Your task to perform on an android device: Open accessibility settings Image 0: 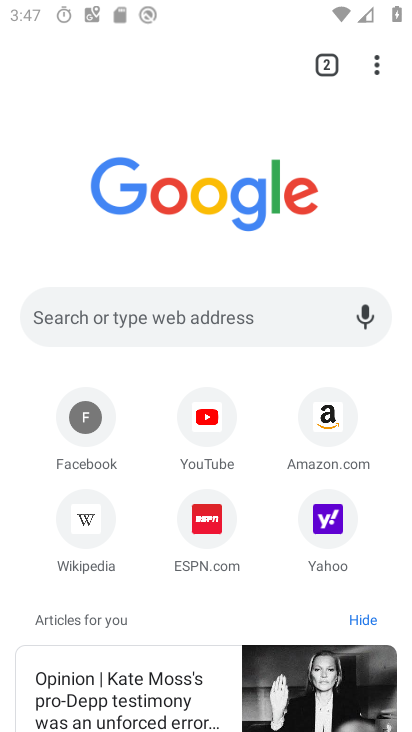
Step 0: drag from (346, 713) to (300, 390)
Your task to perform on an android device: Open accessibility settings Image 1: 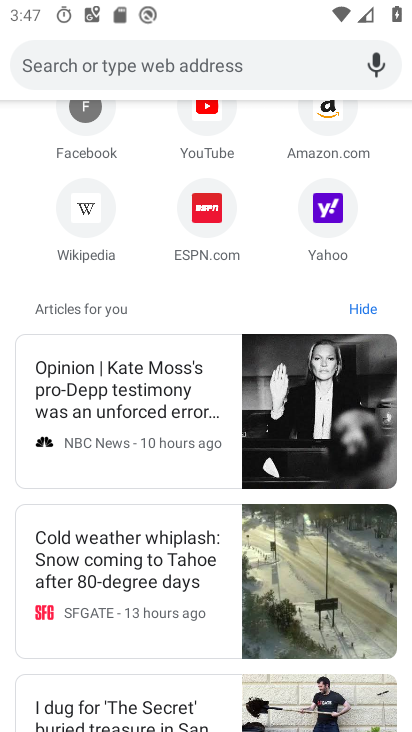
Step 1: press back button
Your task to perform on an android device: Open accessibility settings Image 2: 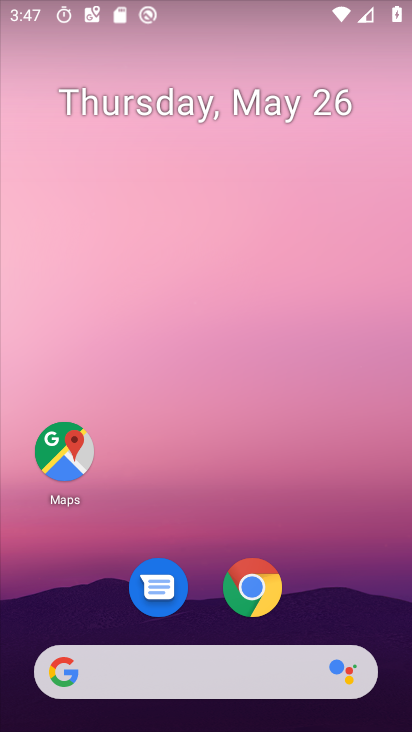
Step 2: drag from (279, 711) to (213, 285)
Your task to perform on an android device: Open accessibility settings Image 3: 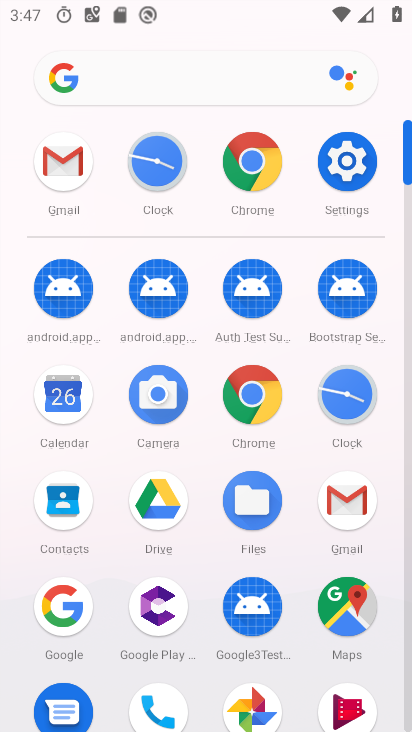
Step 3: click (334, 163)
Your task to perform on an android device: Open accessibility settings Image 4: 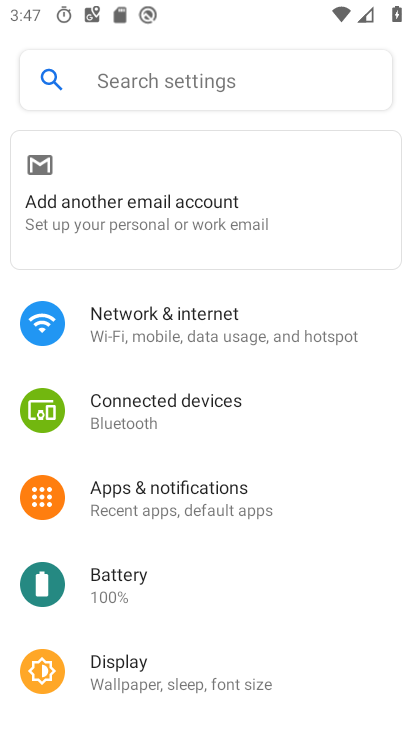
Step 4: drag from (155, 588) to (174, 342)
Your task to perform on an android device: Open accessibility settings Image 5: 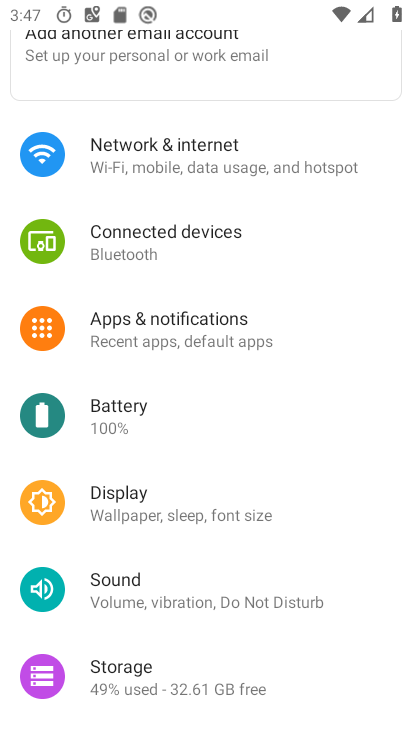
Step 5: drag from (214, 540) to (183, 211)
Your task to perform on an android device: Open accessibility settings Image 6: 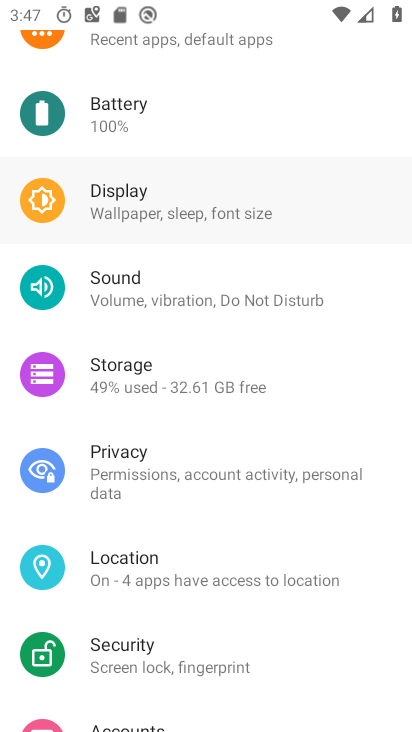
Step 6: drag from (184, 454) to (199, 216)
Your task to perform on an android device: Open accessibility settings Image 7: 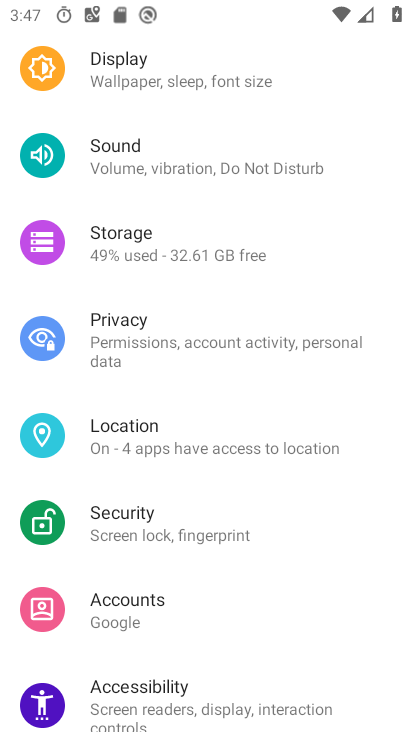
Step 7: click (160, 707)
Your task to perform on an android device: Open accessibility settings Image 8: 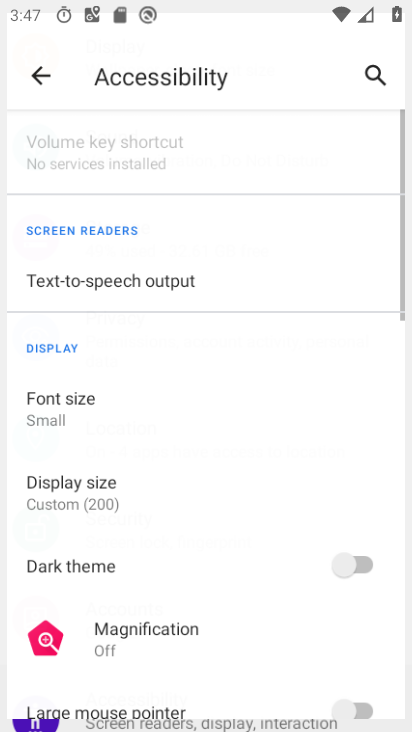
Step 8: click (160, 707)
Your task to perform on an android device: Open accessibility settings Image 9: 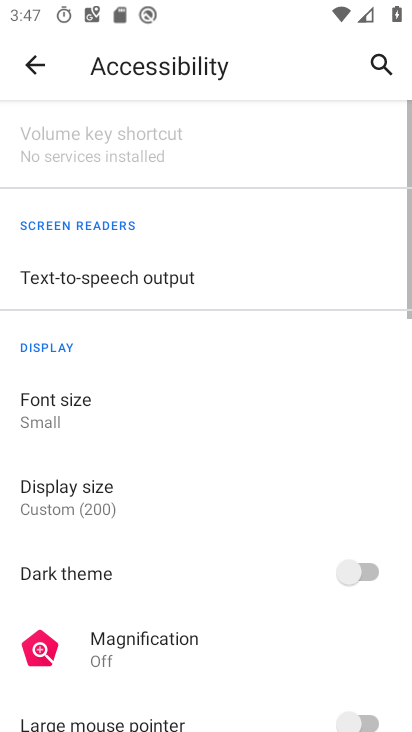
Step 9: click (160, 707)
Your task to perform on an android device: Open accessibility settings Image 10: 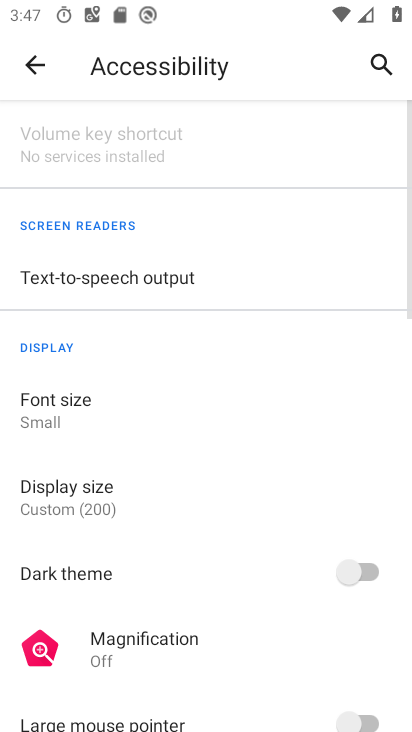
Step 10: drag from (192, 592) to (176, 330)
Your task to perform on an android device: Open accessibility settings Image 11: 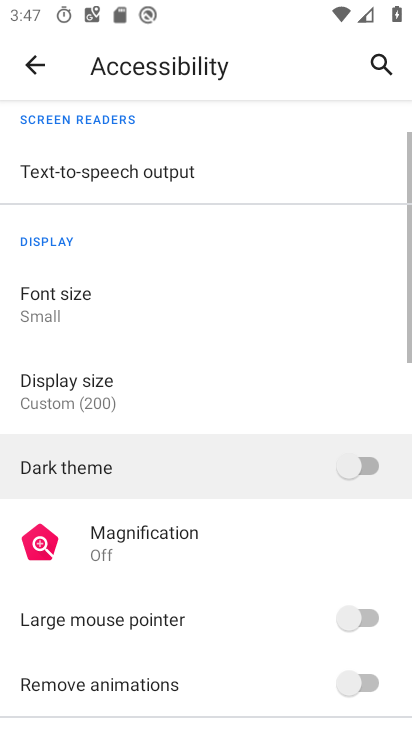
Step 11: drag from (203, 507) to (203, 276)
Your task to perform on an android device: Open accessibility settings Image 12: 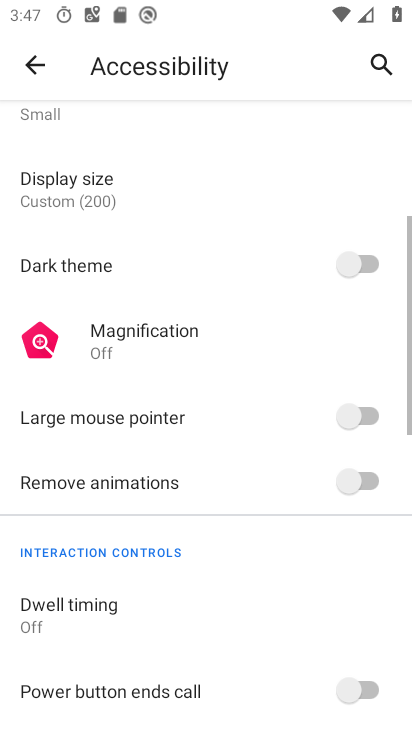
Step 12: click (214, 243)
Your task to perform on an android device: Open accessibility settings Image 13: 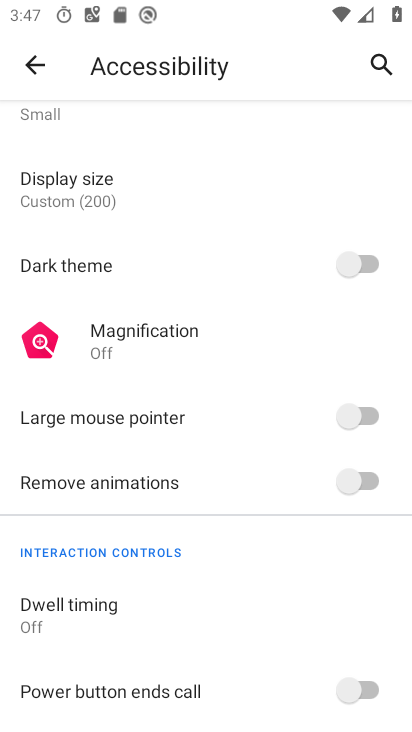
Step 13: drag from (239, 466) to (258, 242)
Your task to perform on an android device: Open accessibility settings Image 14: 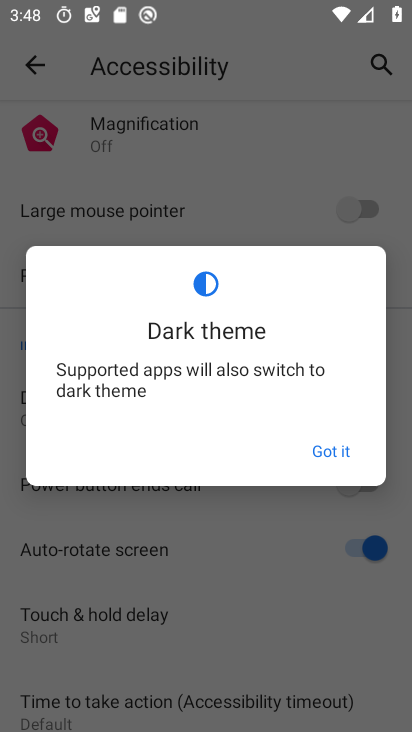
Step 14: click (277, 527)
Your task to perform on an android device: Open accessibility settings Image 15: 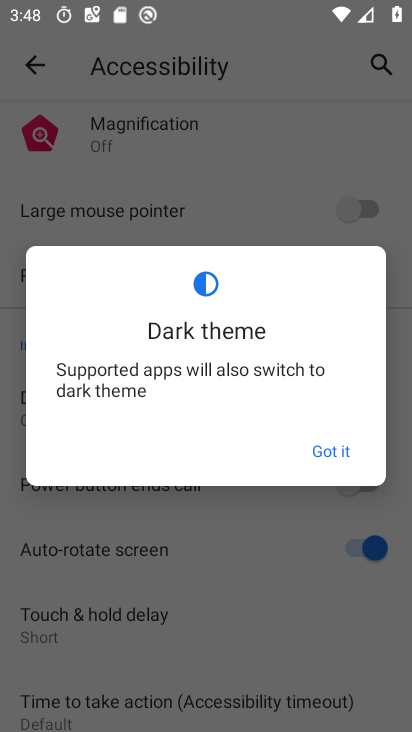
Step 15: click (277, 527)
Your task to perform on an android device: Open accessibility settings Image 16: 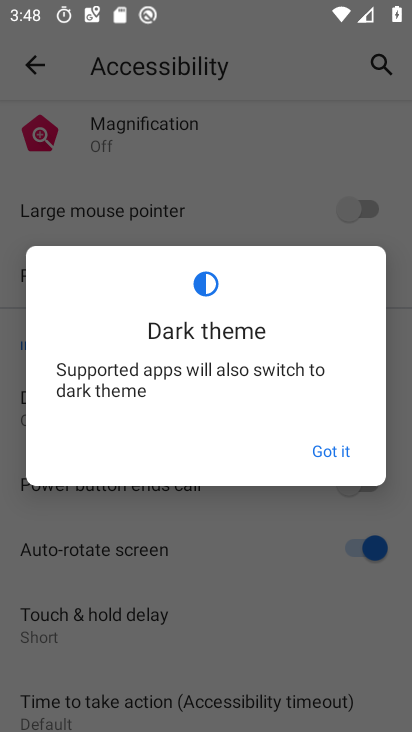
Step 16: click (277, 527)
Your task to perform on an android device: Open accessibility settings Image 17: 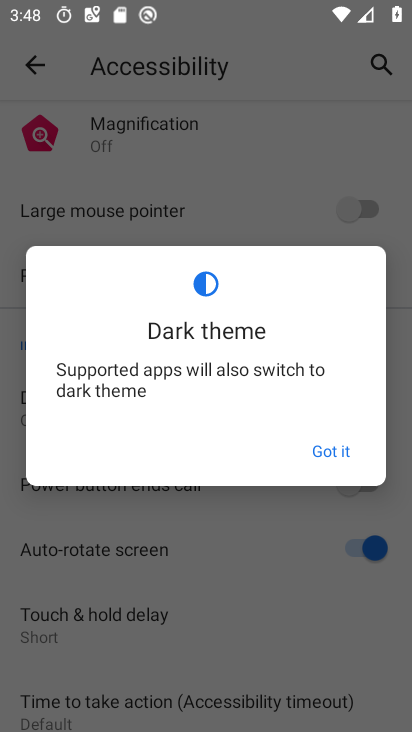
Step 17: click (277, 527)
Your task to perform on an android device: Open accessibility settings Image 18: 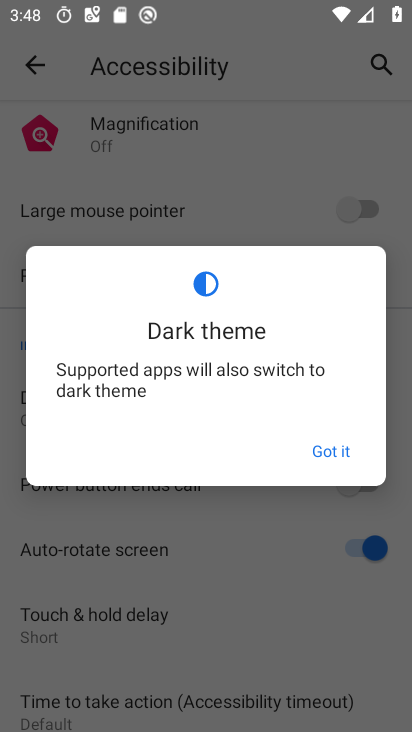
Step 18: click (277, 527)
Your task to perform on an android device: Open accessibility settings Image 19: 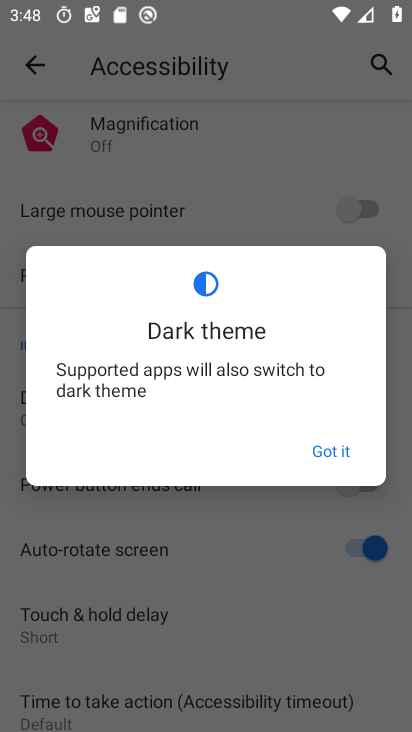
Step 19: task complete